Your task to perform on an android device: turn off location Image 0: 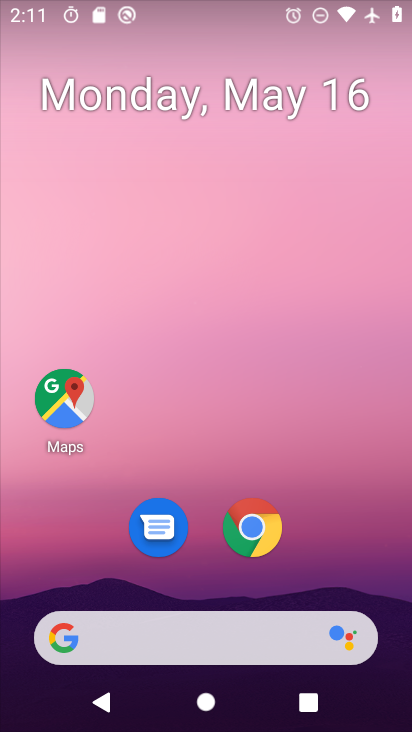
Step 0: press home button
Your task to perform on an android device: turn off location Image 1: 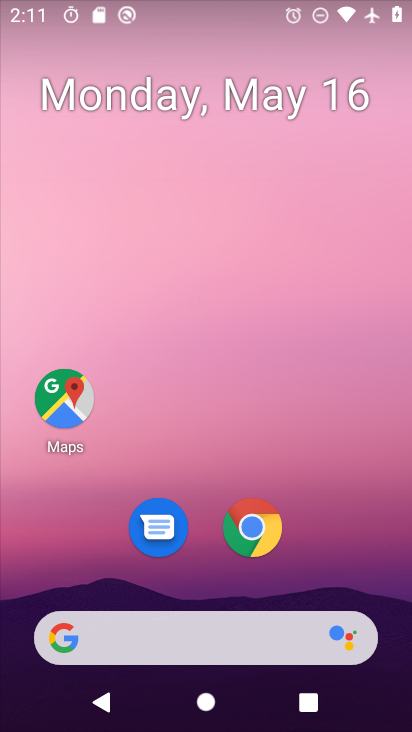
Step 1: drag from (178, 616) to (318, 128)
Your task to perform on an android device: turn off location Image 2: 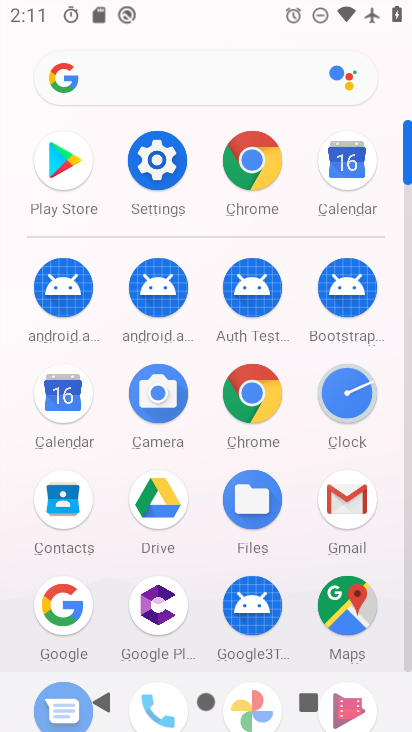
Step 2: click (150, 165)
Your task to perform on an android device: turn off location Image 3: 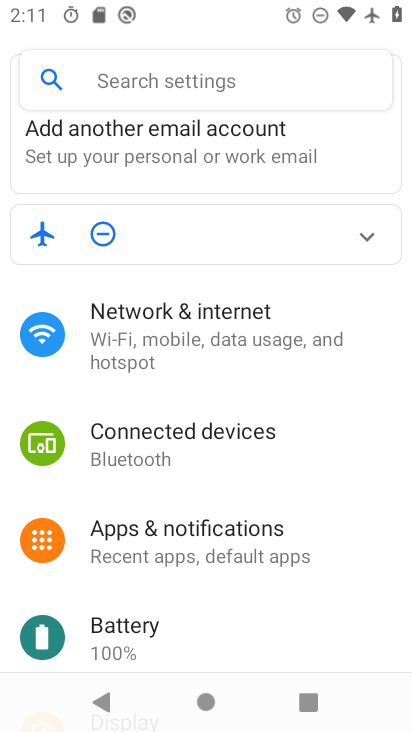
Step 3: drag from (189, 614) to (325, 12)
Your task to perform on an android device: turn off location Image 4: 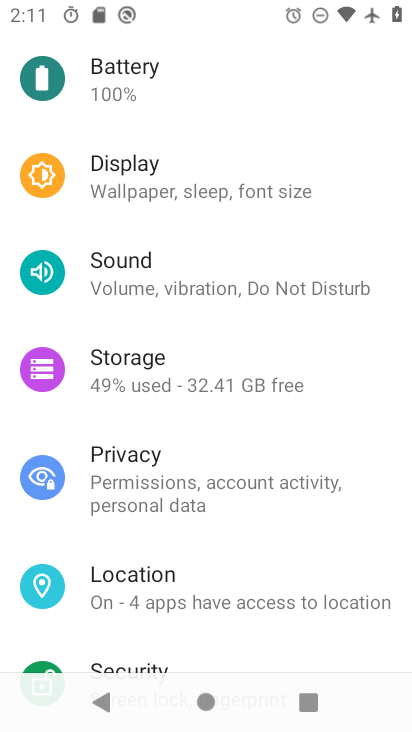
Step 4: click (137, 563)
Your task to perform on an android device: turn off location Image 5: 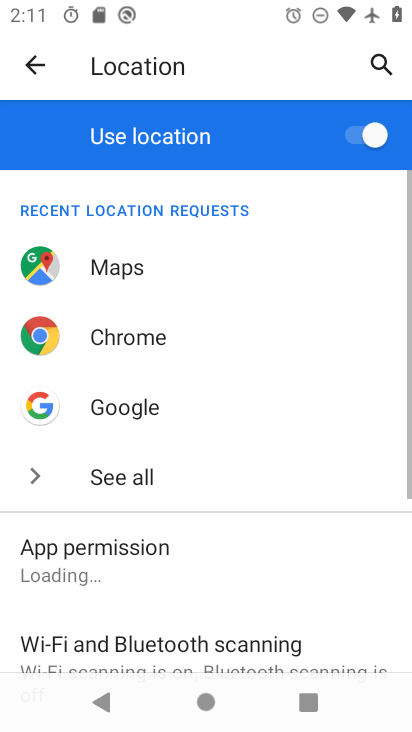
Step 5: click (348, 134)
Your task to perform on an android device: turn off location Image 6: 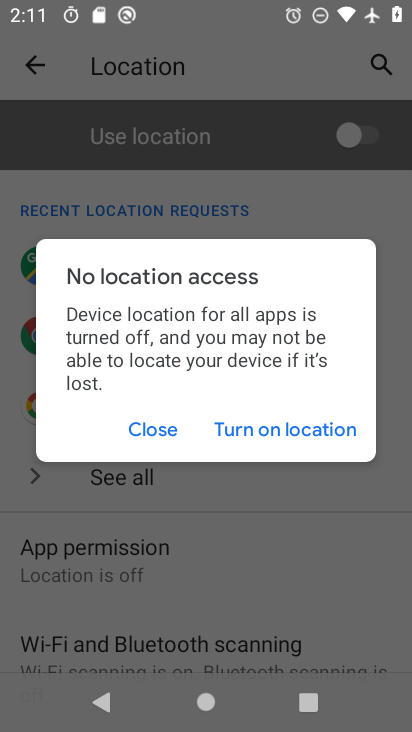
Step 6: click (157, 441)
Your task to perform on an android device: turn off location Image 7: 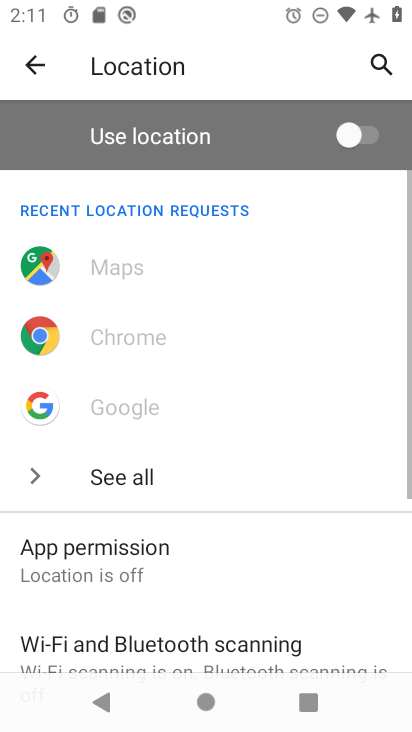
Step 7: task complete